Your task to perform on an android device: turn off data saver in the chrome app Image 0: 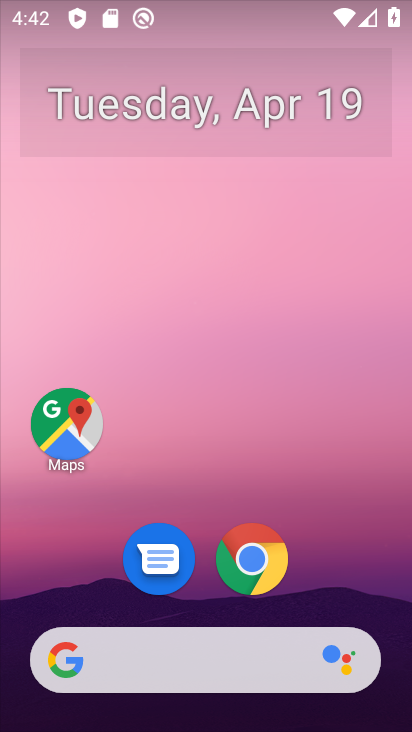
Step 0: click (275, 570)
Your task to perform on an android device: turn off data saver in the chrome app Image 1: 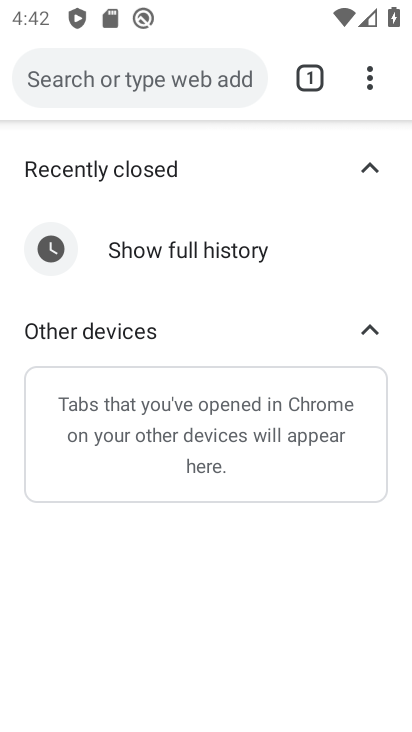
Step 1: click (368, 78)
Your task to perform on an android device: turn off data saver in the chrome app Image 2: 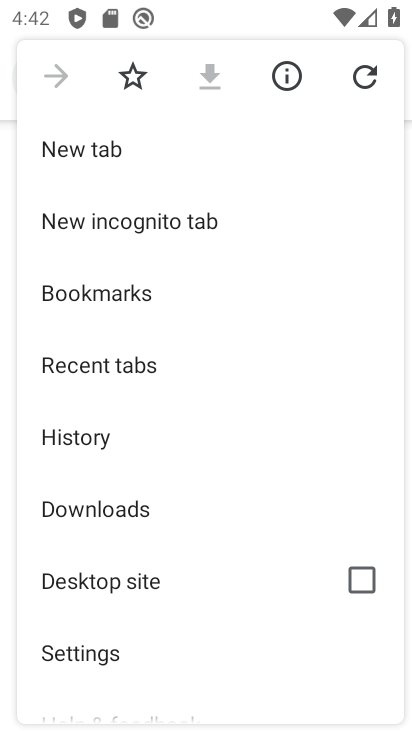
Step 2: click (113, 657)
Your task to perform on an android device: turn off data saver in the chrome app Image 3: 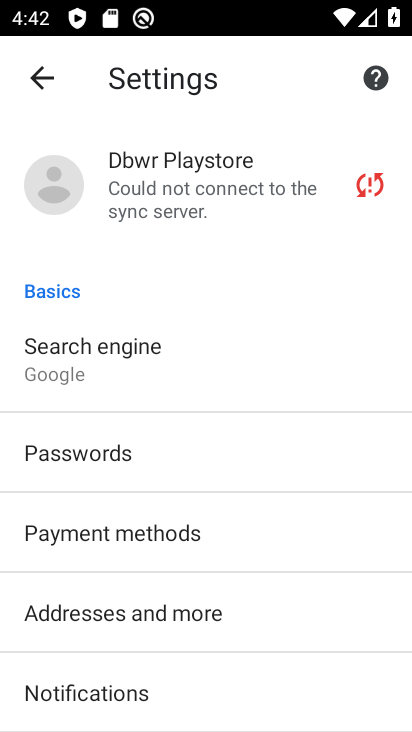
Step 3: drag from (70, 514) to (80, 252)
Your task to perform on an android device: turn off data saver in the chrome app Image 4: 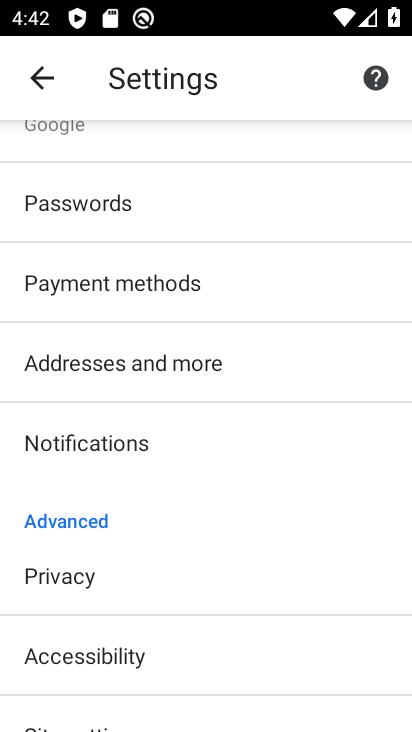
Step 4: drag from (140, 497) to (139, 275)
Your task to perform on an android device: turn off data saver in the chrome app Image 5: 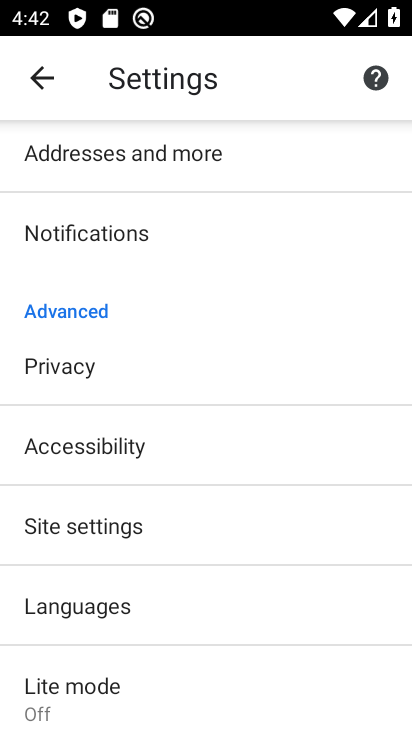
Step 5: click (134, 700)
Your task to perform on an android device: turn off data saver in the chrome app Image 6: 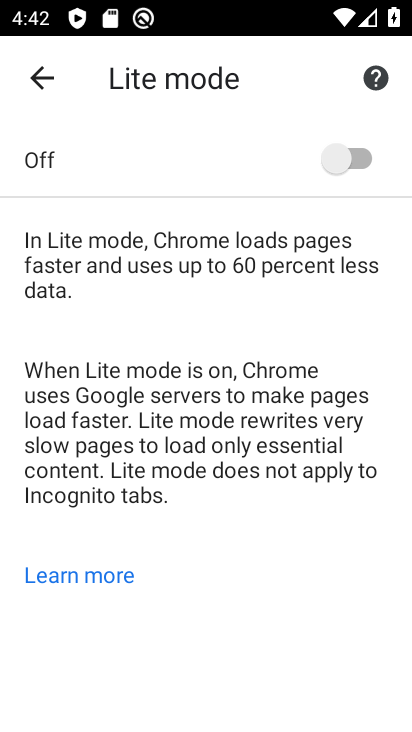
Step 6: task complete